Your task to perform on an android device: Search for the best rated soccer ball on AliExpress Image 0: 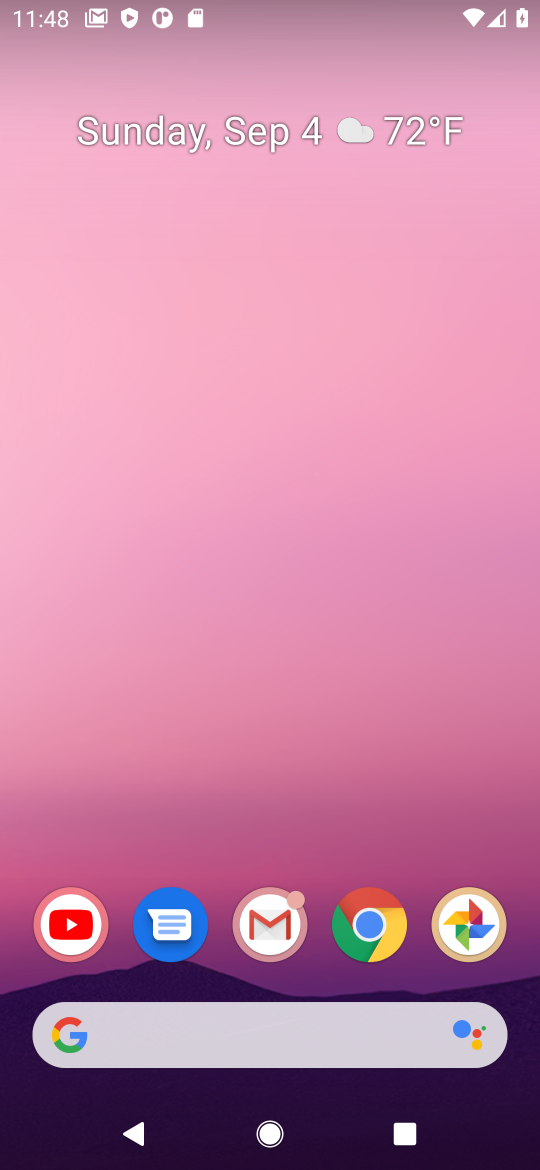
Step 0: press home button
Your task to perform on an android device: Search for the best rated soccer ball on AliExpress Image 1: 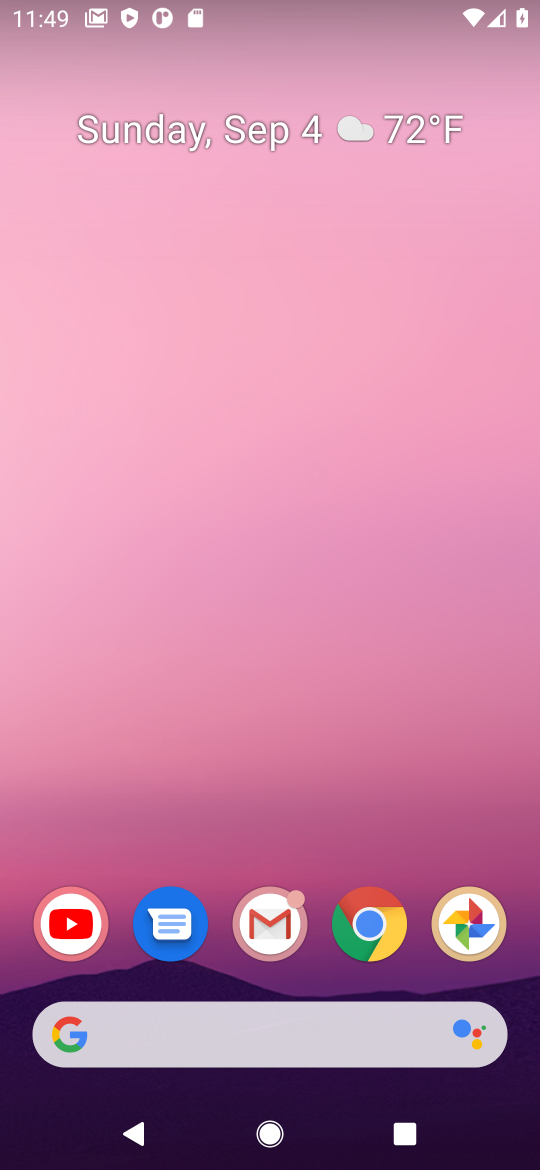
Step 1: drag from (331, 869) to (381, 46)
Your task to perform on an android device: Search for the best rated soccer ball on AliExpress Image 2: 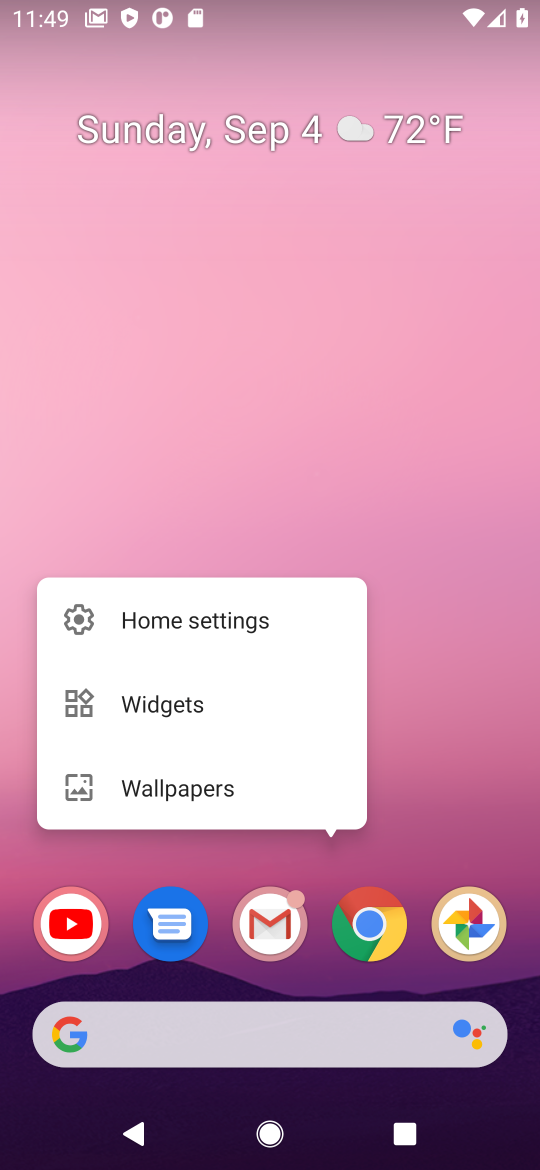
Step 2: click (417, 801)
Your task to perform on an android device: Search for the best rated soccer ball on AliExpress Image 3: 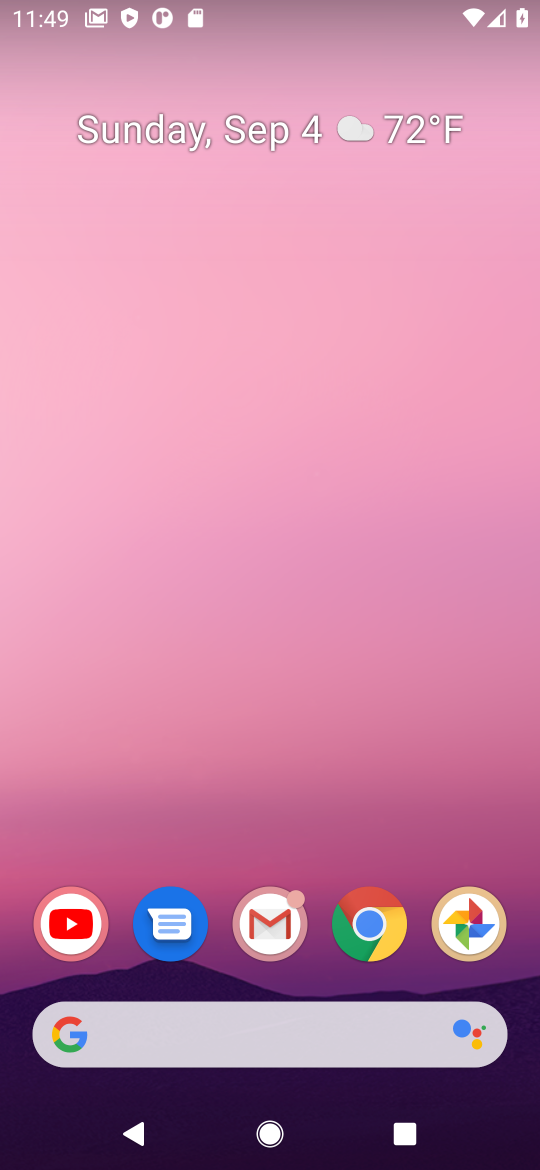
Step 3: drag from (422, 385) to (420, 1)
Your task to perform on an android device: Search for the best rated soccer ball on AliExpress Image 4: 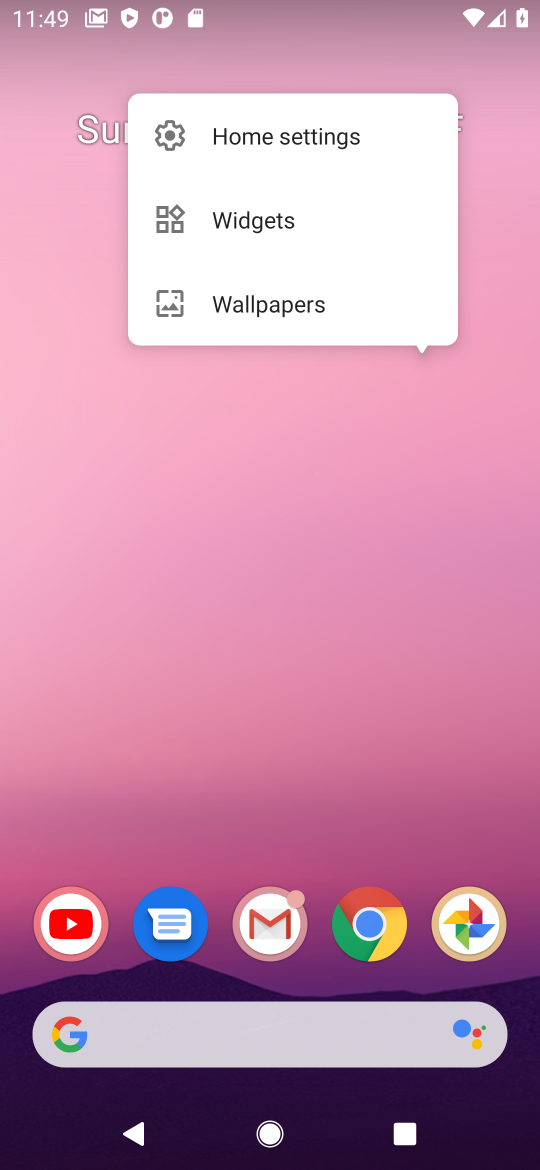
Step 4: click (327, 859)
Your task to perform on an android device: Search for the best rated soccer ball on AliExpress Image 5: 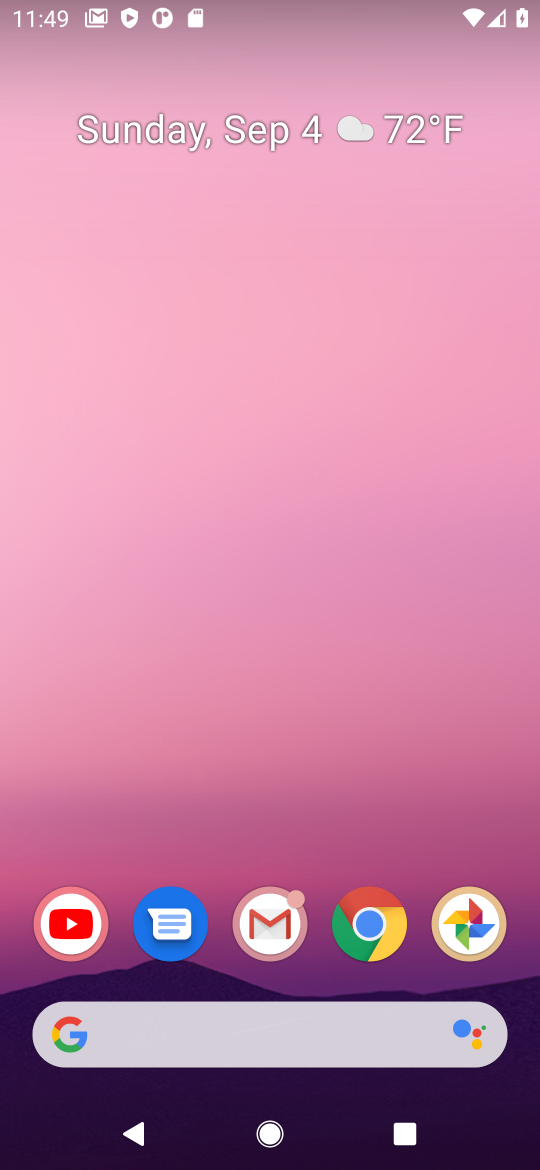
Step 5: drag from (322, 11) to (240, 0)
Your task to perform on an android device: Search for the best rated soccer ball on AliExpress Image 6: 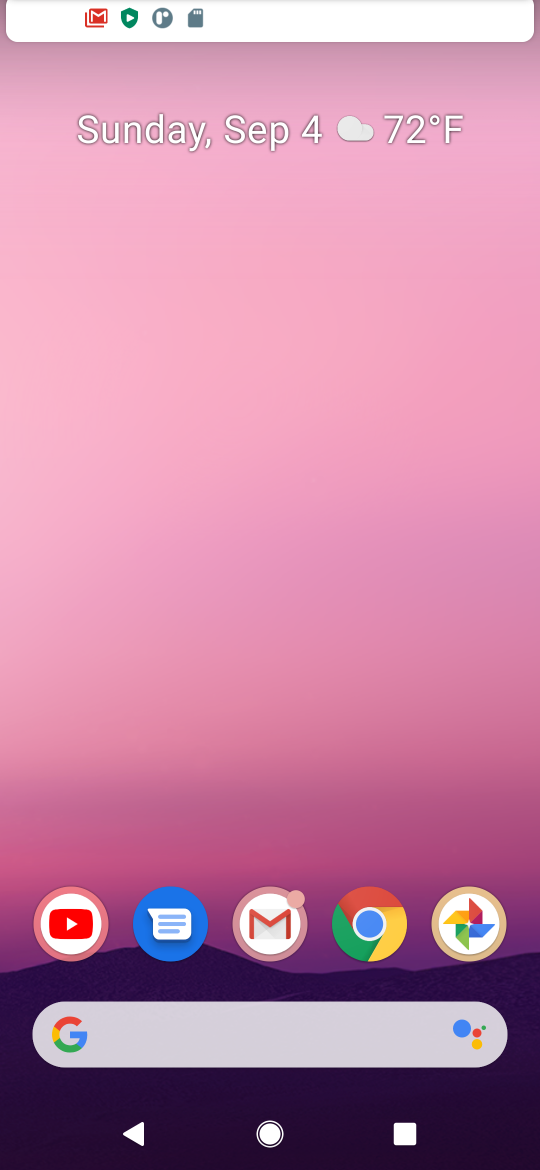
Step 6: drag from (327, 658) to (390, 18)
Your task to perform on an android device: Search for the best rated soccer ball on AliExpress Image 7: 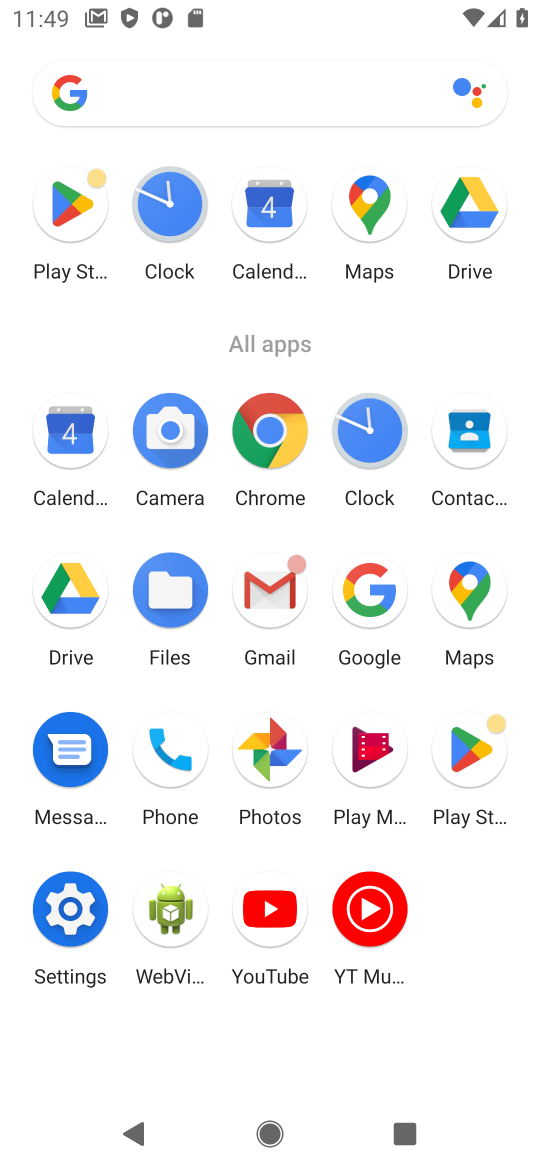
Step 7: click (260, 419)
Your task to perform on an android device: Search for the best rated soccer ball on AliExpress Image 8: 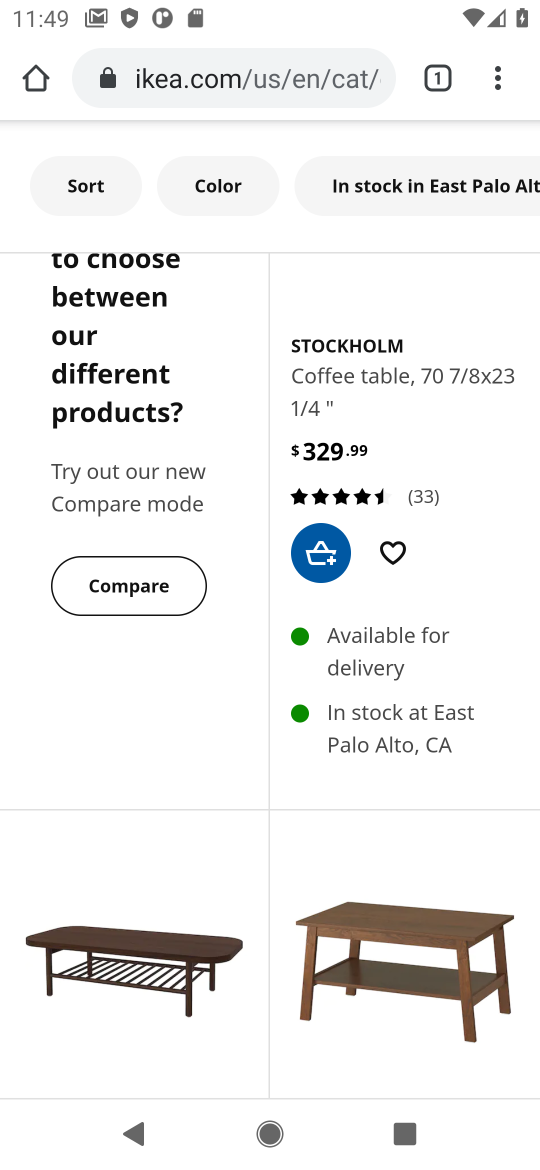
Step 8: click (440, 74)
Your task to perform on an android device: Search for the best rated soccer ball on AliExpress Image 9: 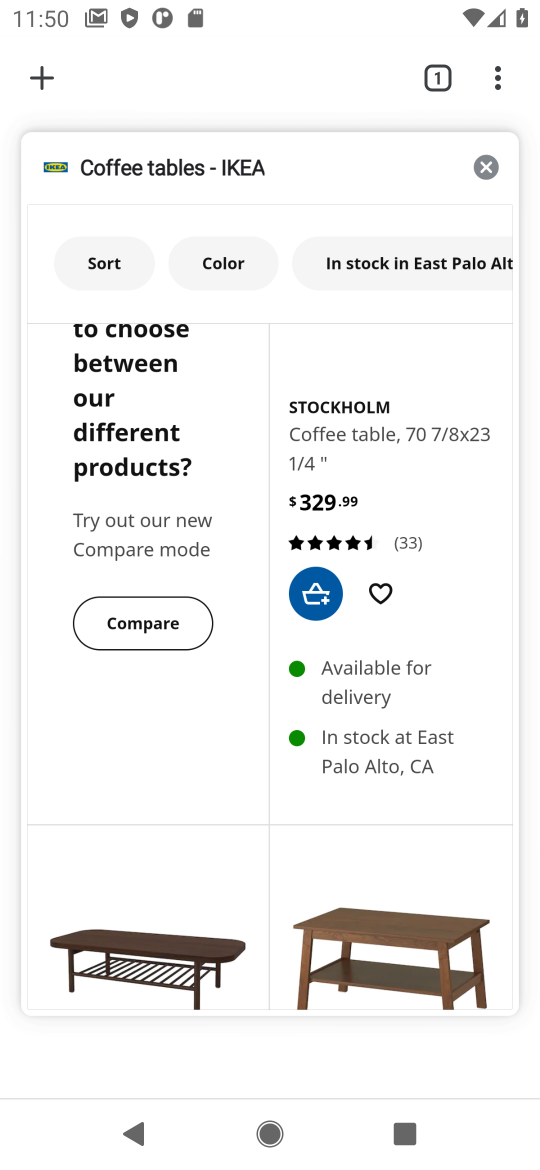
Step 9: click (484, 160)
Your task to perform on an android device: Search for the best rated soccer ball on AliExpress Image 10: 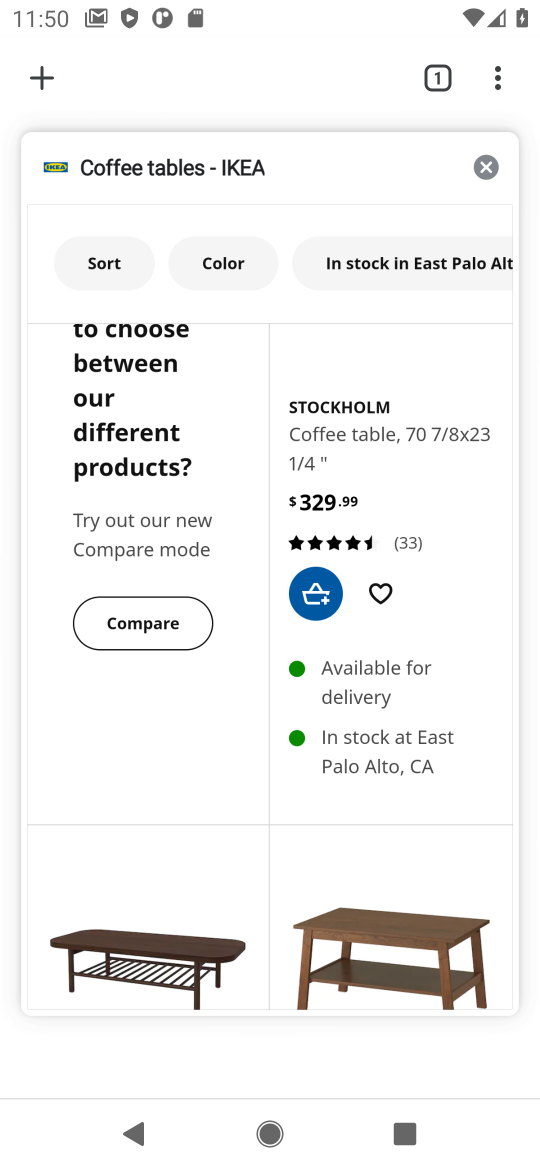
Step 10: click (38, 85)
Your task to perform on an android device: Search for the best rated soccer ball on AliExpress Image 11: 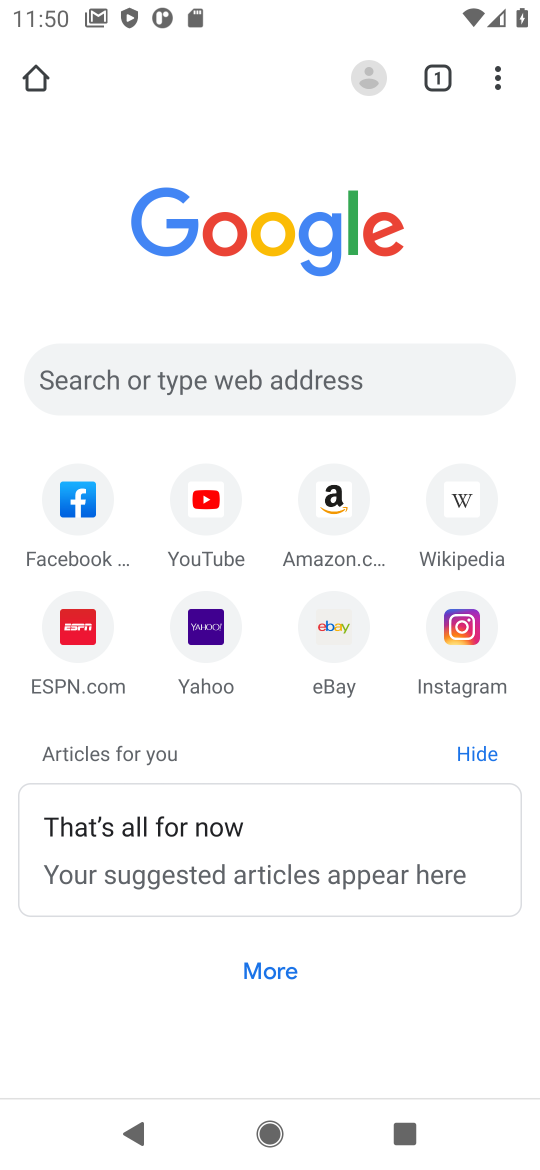
Step 11: click (223, 379)
Your task to perform on an android device: Search for the best rated soccer ball on AliExpress Image 12: 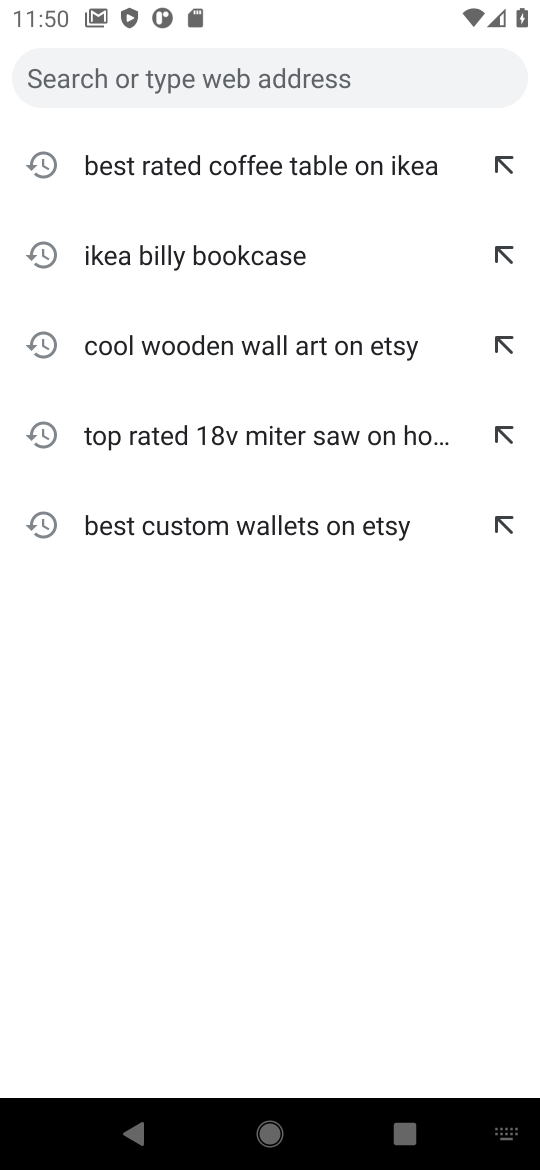
Step 12: type "best rated soccer ball on AliExpress"
Your task to perform on an android device: Search for the best rated soccer ball on AliExpress Image 13: 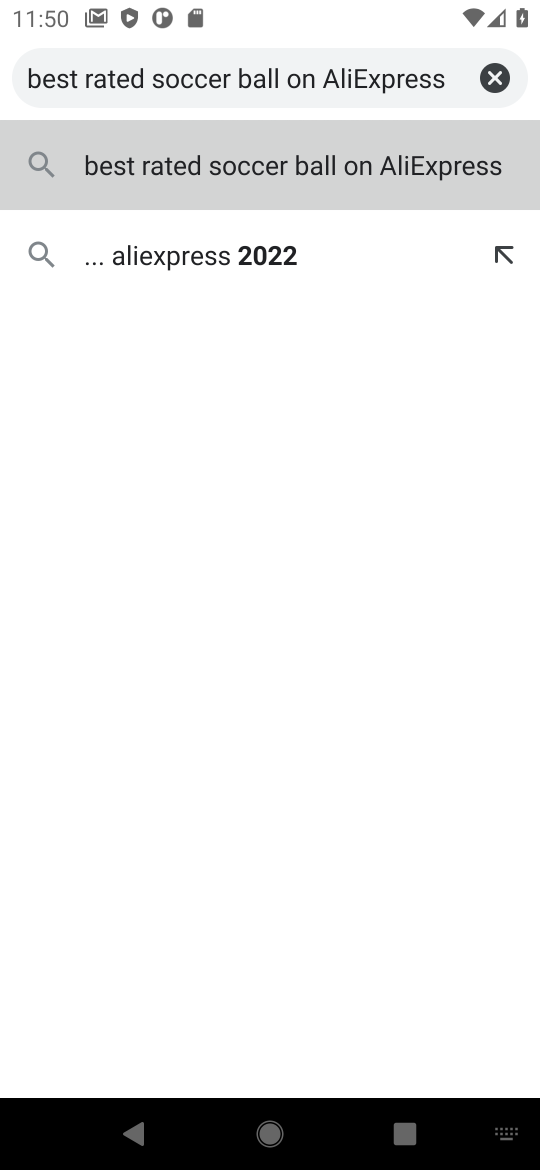
Step 13: click (150, 192)
Your task to perform on an android device: Search for the best rated soccer ball on AliExpress Image 14: 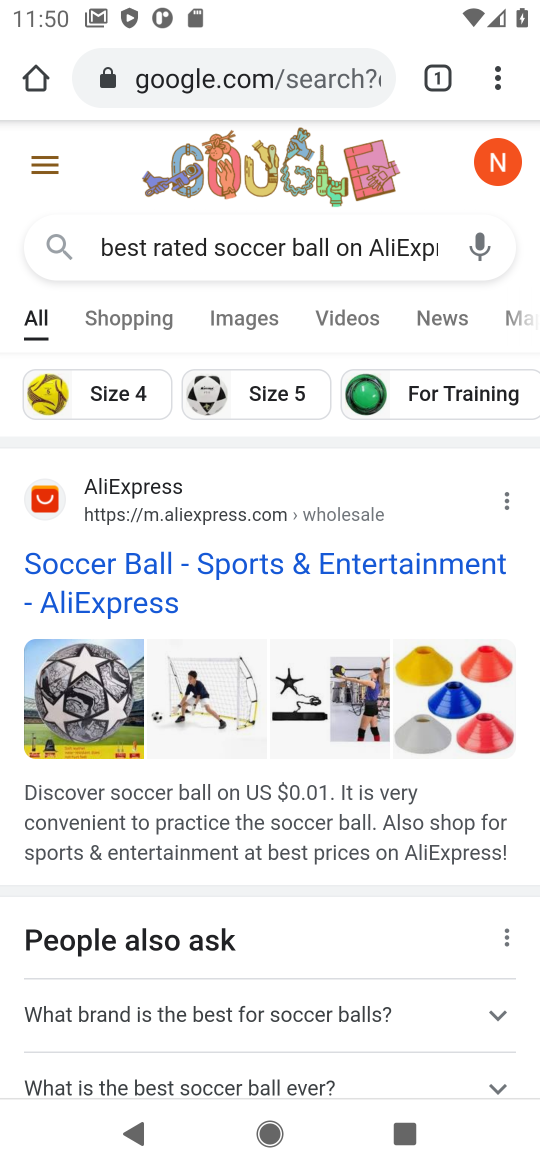
Step 14: drag from (304, 926) to (272, 224)
Your task to perform on an android device: Search for the best rated soccer ball on AliExpress Image 15: 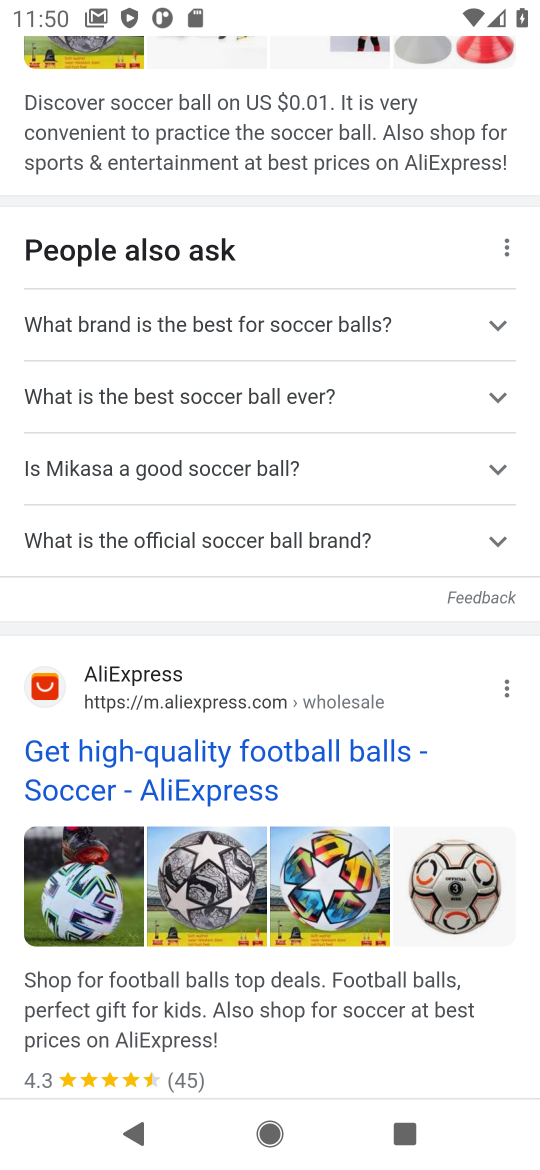
Step 15: drag from (299, 213) to (331, 923)
Your task to perform on an android device: Search for the best rated soccer ball on AliExpress Image 16: 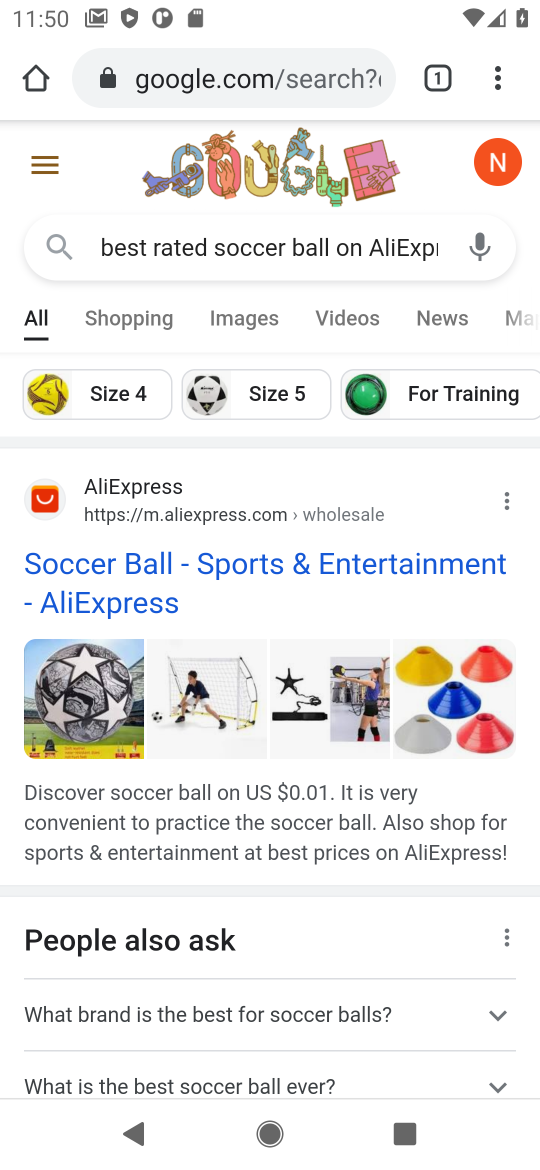
Step 16: click (350, 561)
Your task to perform on an android device: Search for the best rated soccer ball on AliExpress Image 17: 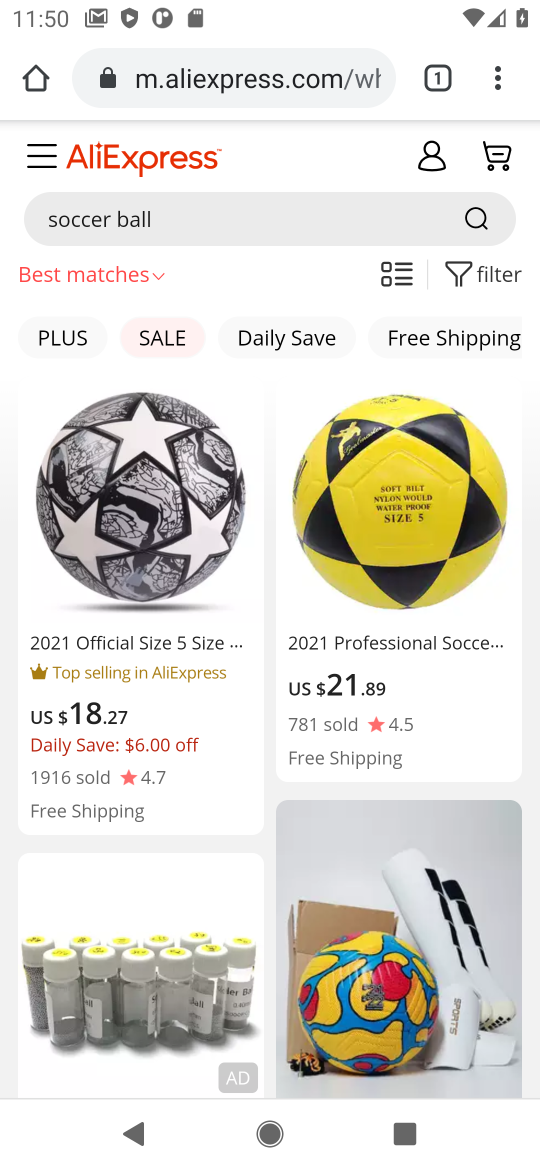
Step 17: drag from (273, 842) to (326, 298)
Your task to perform on an android device: Search for the best rated soccer ball on AliExpress Image 18: 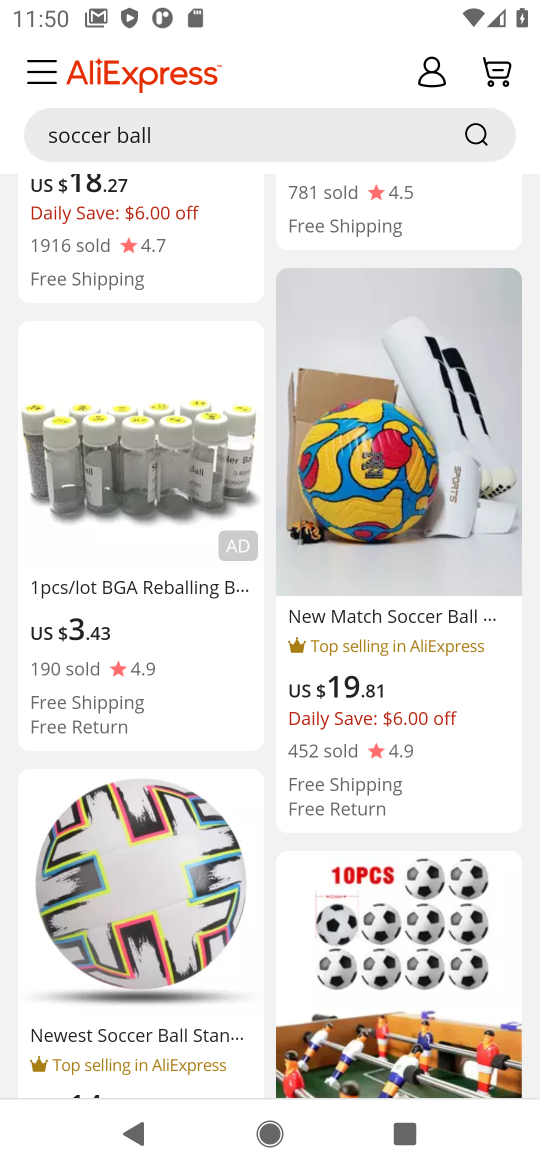
Step 18: drag from (269, 1018) to (285, 439)
Your task to perform on an android device: Search for the best rated soccer ball on AliExpress Image 19: 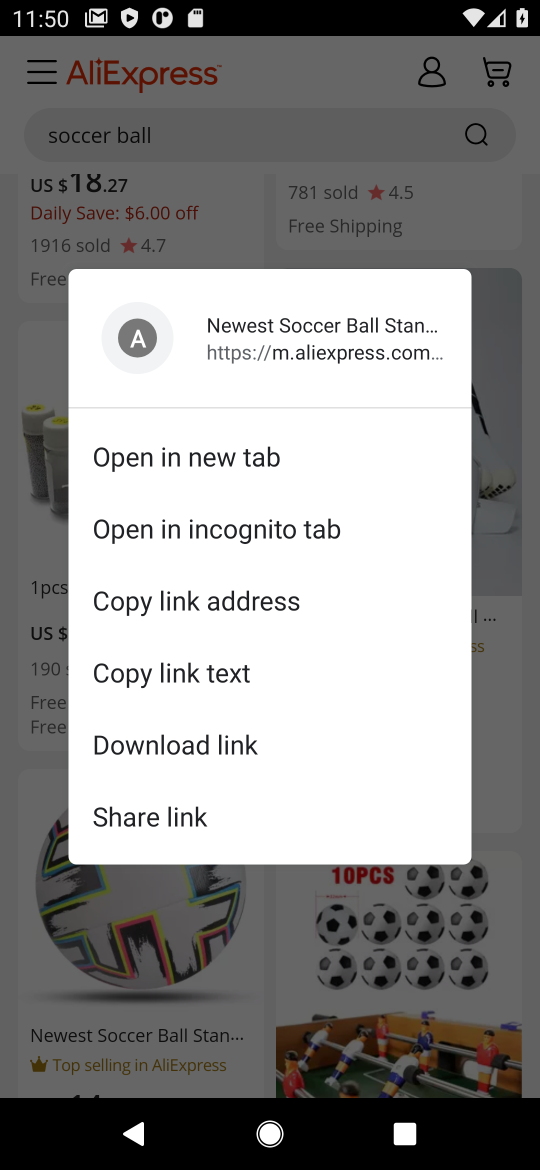
Step 19: click (406, 997)
Your task to perform on an android device: Search for the best rated soccer ball on AliExpress Image 20: 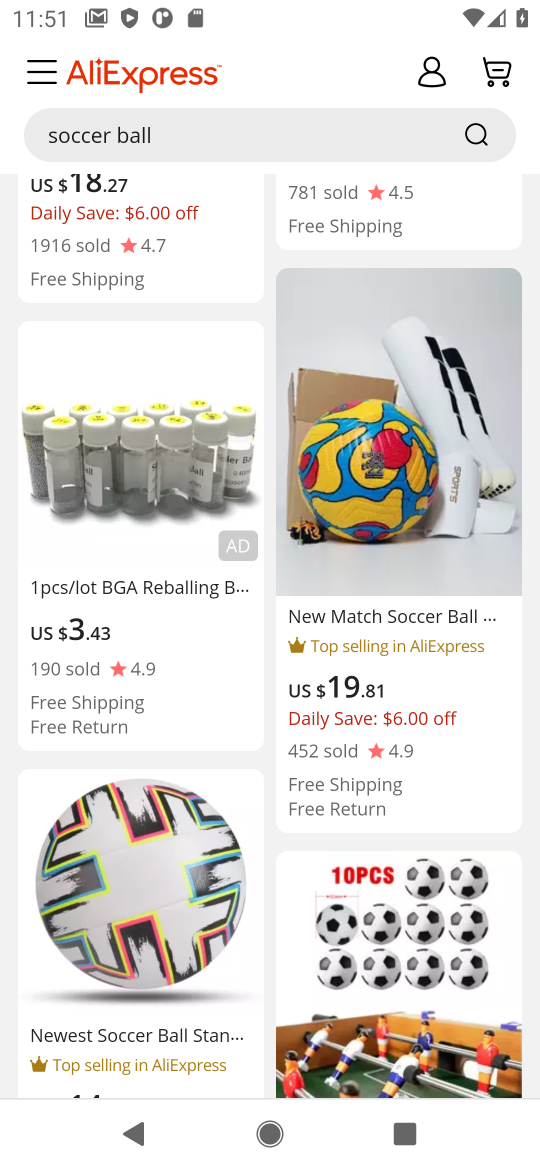
Step 20: drag from (292, 731) to (289, 236)
Your task to perform on an android device: Search for the best rated soccer ball on AliExpress Image 21: 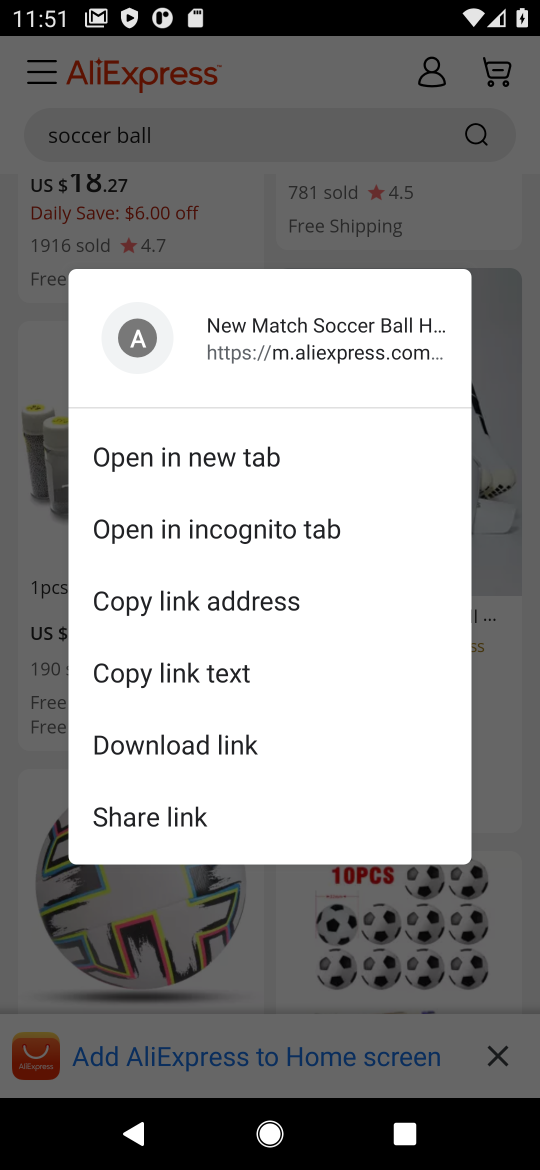
Step 21: click (252, 939)
Your task to perform on an android device: Search for the best rated soccer ball on AliExpress Image 22: 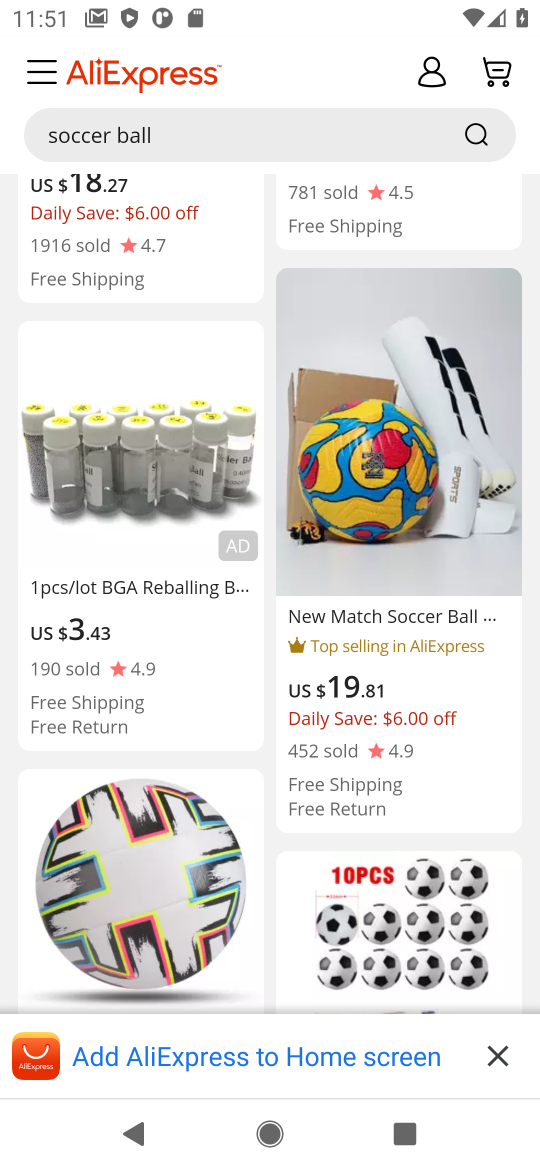
Step 22: task complete